Your task to perform on an android device: Show me popular videos on Youtube Image 0: 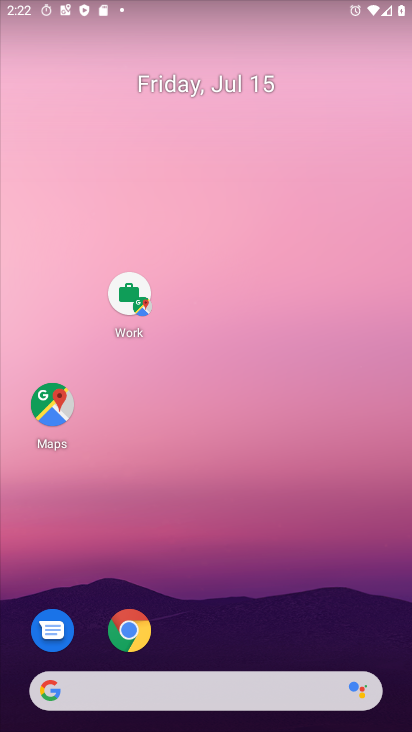
Step 0: drag from (223, 519) to (263, 183)
Your task to perform on an android device: Show me popular videos on Youtube Image 1: 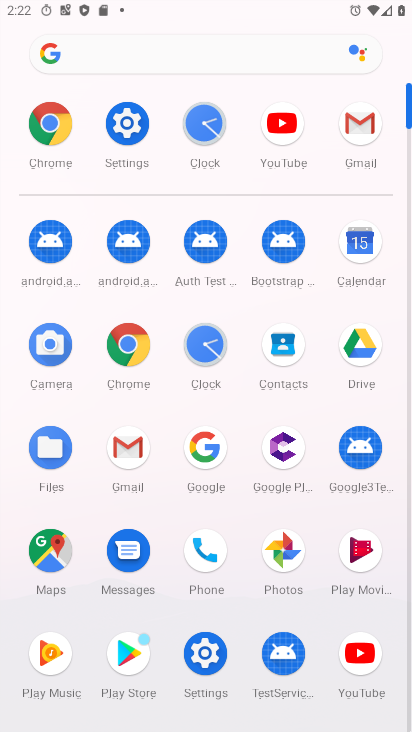
Step 1: click (265, 146)
Your task to perform on an android device: Show me popular videos on Youtube Image 2: 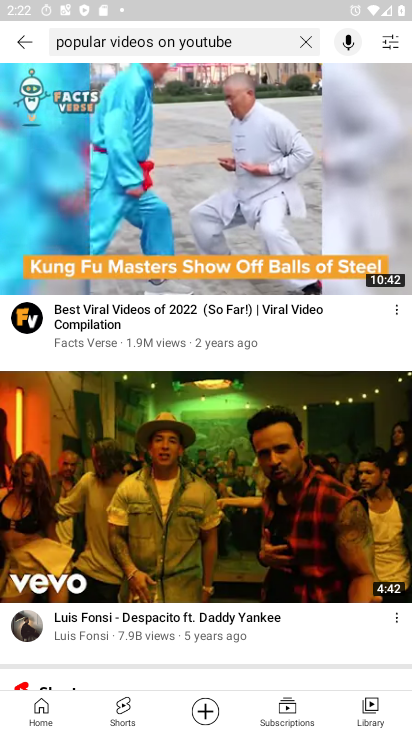
Step 2: task complete